Your task to perform on an android device: turn off translation in the chrome app Image 0: 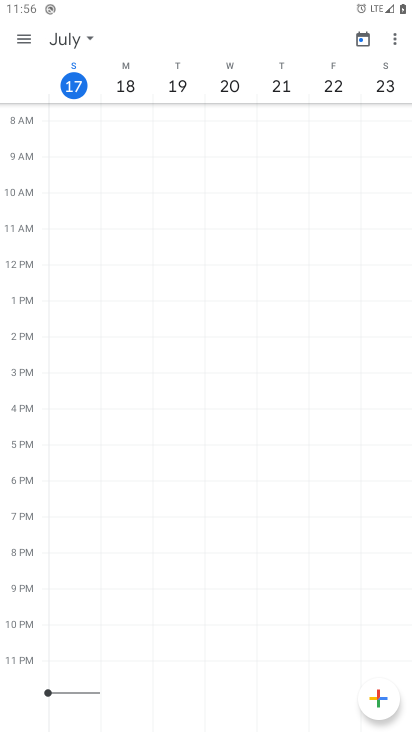
Step 0: press home button
Your task to perform on an android device: turn off translation in the chrome app Image 1: 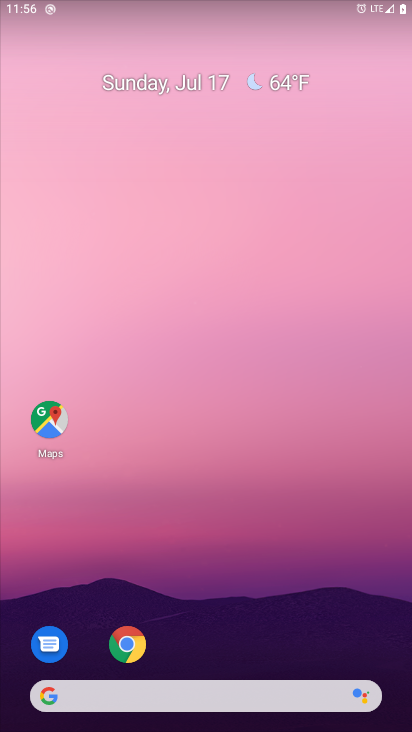
Step 1: drag from (287, 657) to (266, 50)
Your task to perform on an android device: turn off translation in the chrome app Image 2: 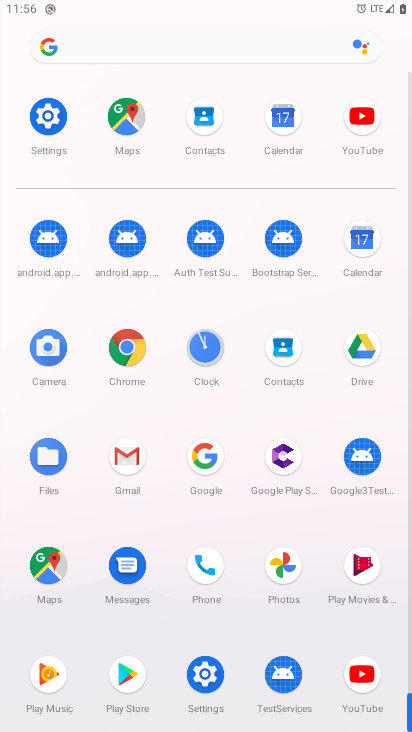
Step 2: click (118, 359)
Your task to perform on an android device: turn off translation in the chrome app Image 3: 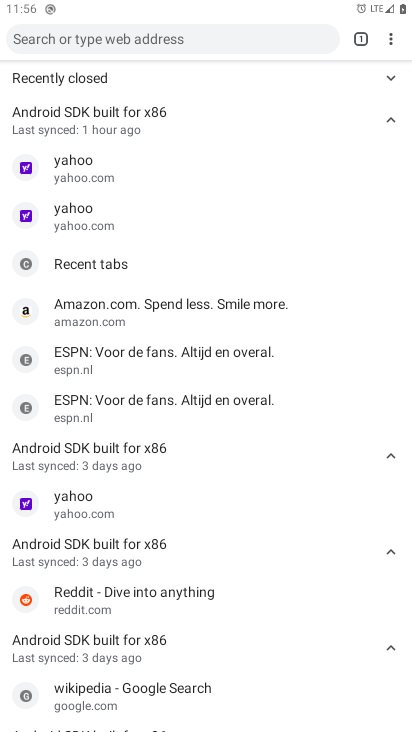
Step 3: drag from (388, 43) to (237, 322)
Your task to perform on an android device: turn off translation in the chrome app Image 4: 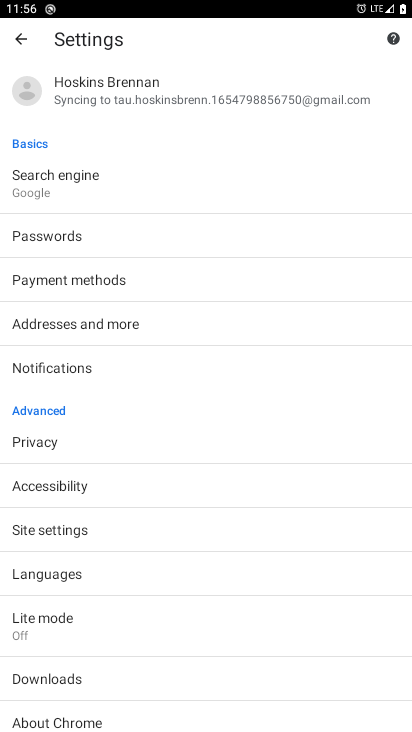
Step 4: click (173, 578)
Your task to perform on an android device: turn off translation in the chrome app Image 5: 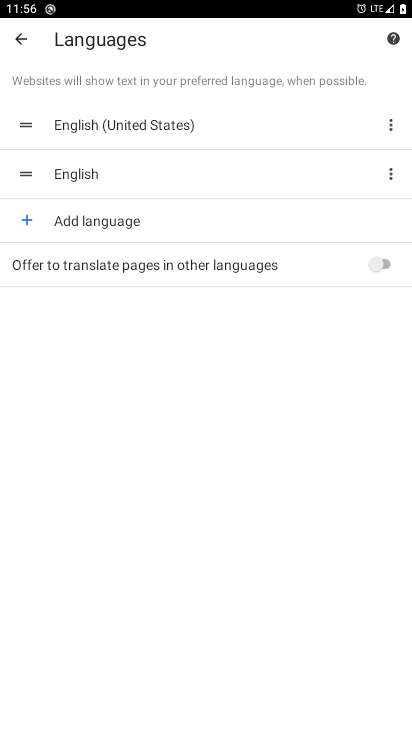
Step 5: task complete